Your task to perform on an android device: toggle translation in the chrome app Image 0: 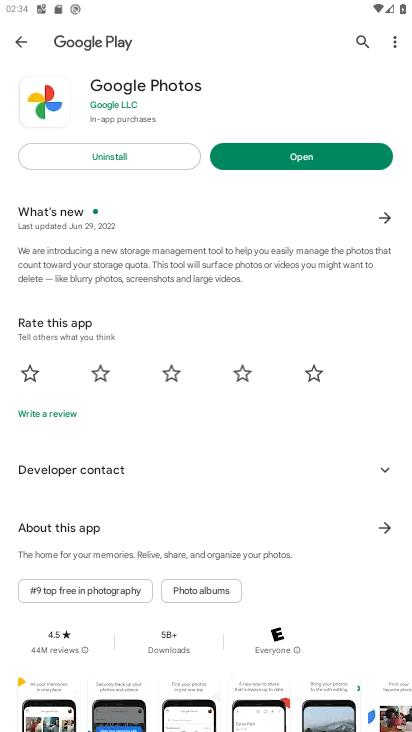
Step 0: press home button
Your task to perform on an android device: toggle translation in the chrome app Image 1: 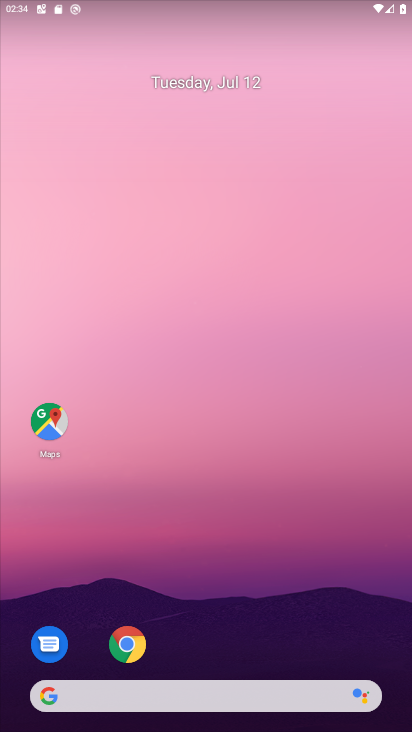
Step 1: drag from (207, 660) to (108, 57)
Your task to perform on an android device: toggle translation in the chrome app Image 2: 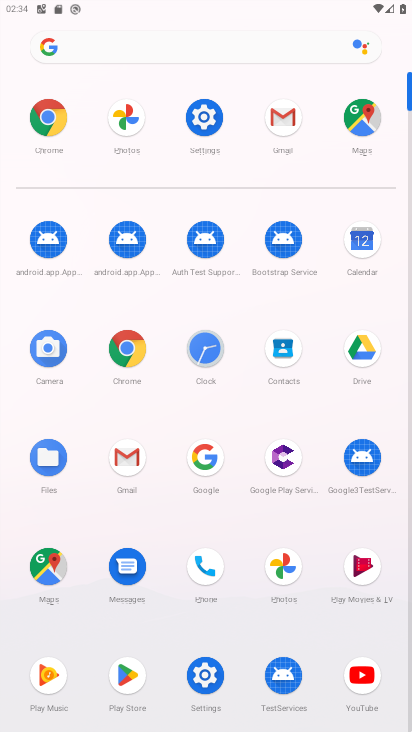
Step 2: click (131, 349)
Your task to perform on an android device: toggle translation in the chrome app Image 3: 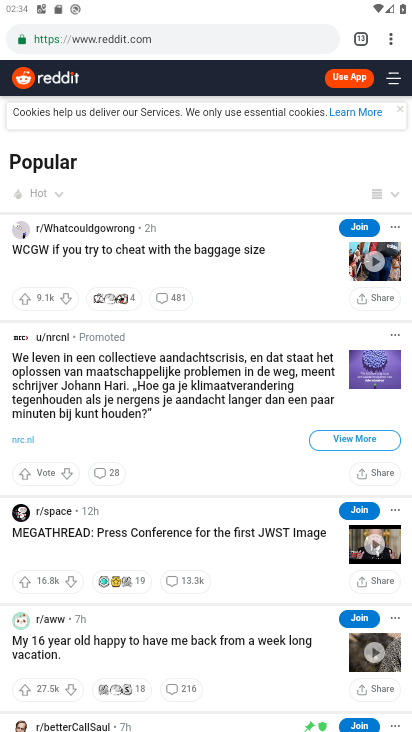
Step 3: drag from (389, 39) to (252, 470)
Your task to perform on an android device: toggle translation in the chrome app Image 4: 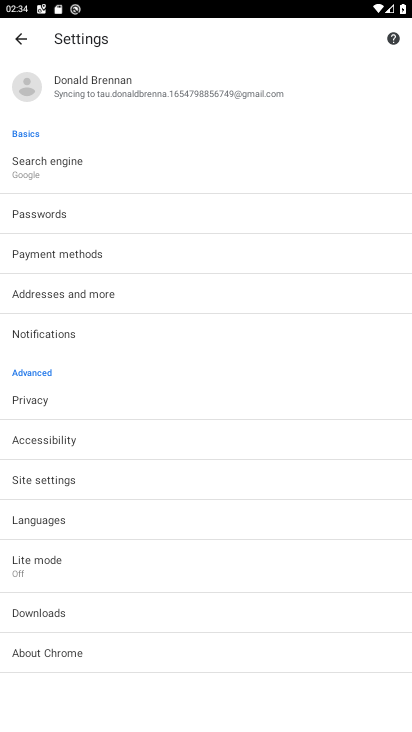
Step 4: click (55, 518)
Your task to perform on an android device: toggle translation in the chrome app Image 5: 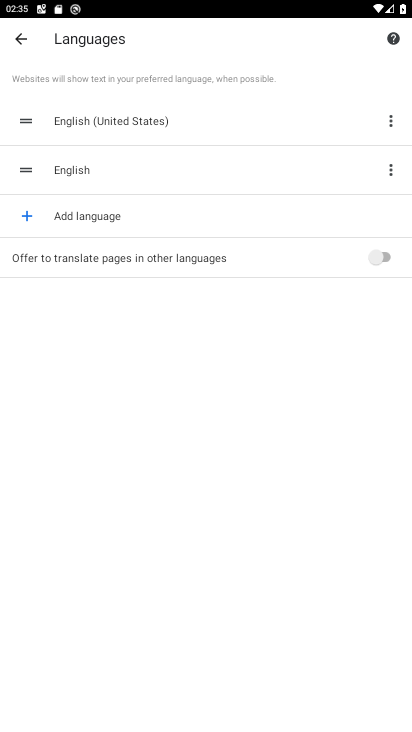
Step 5: click (383, 259)
Your task to perform on an android device: toggle translation in the chrome app Image 6: 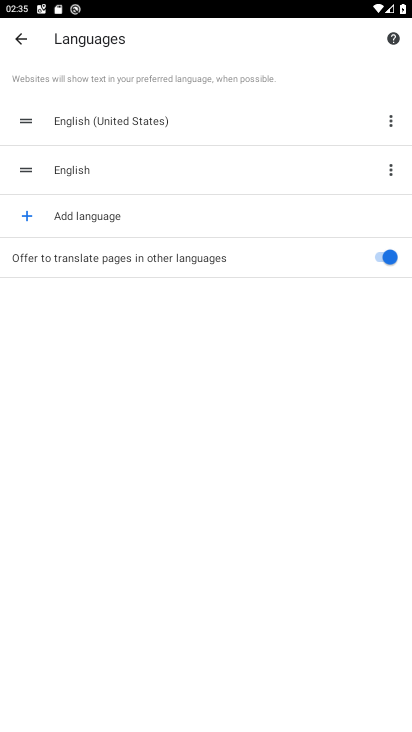
Step 6: task complete